Your task to perform on an android device: What's the weather? Image 0: 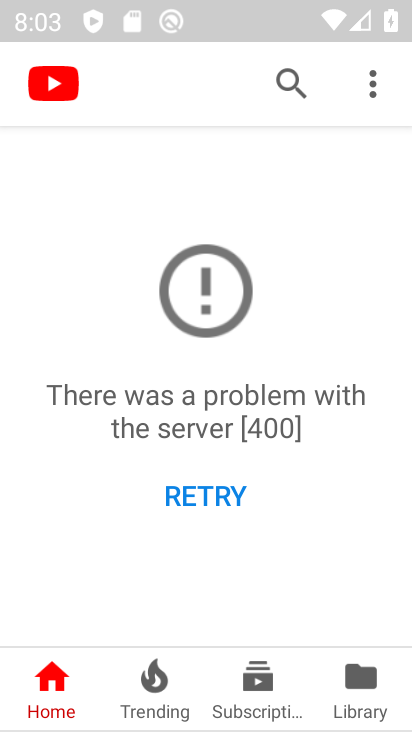
Step 0: press home button
Your task to perform on an android device: What's the weather? Image 1: 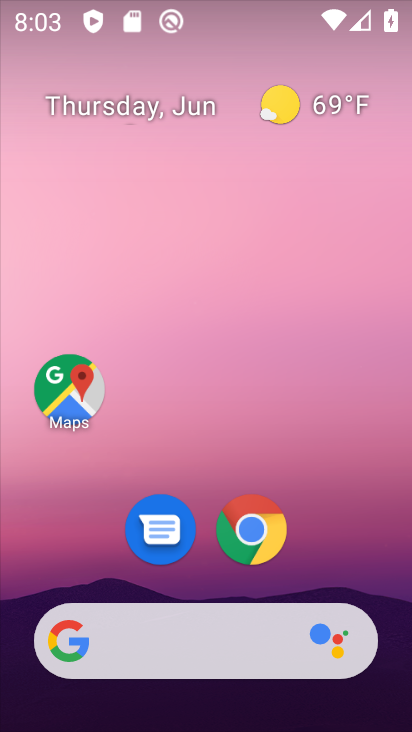
Step 1: click (172, 641)
Your task to perform on an android device: What's the weather? Image 2: 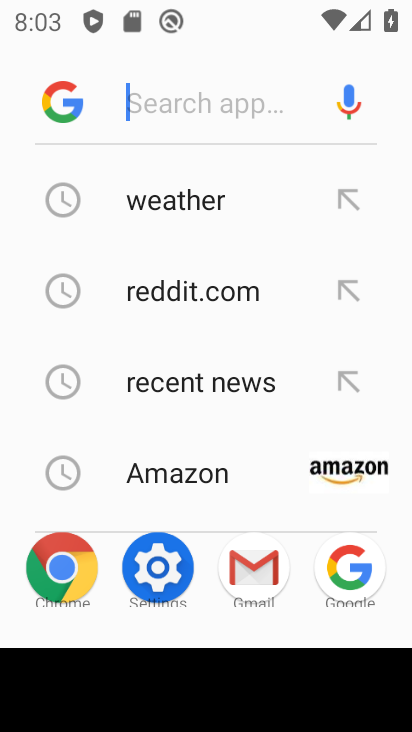
Step 2: click (205, 221)
Your task to perform on an android device: What's the weather? Image 3: 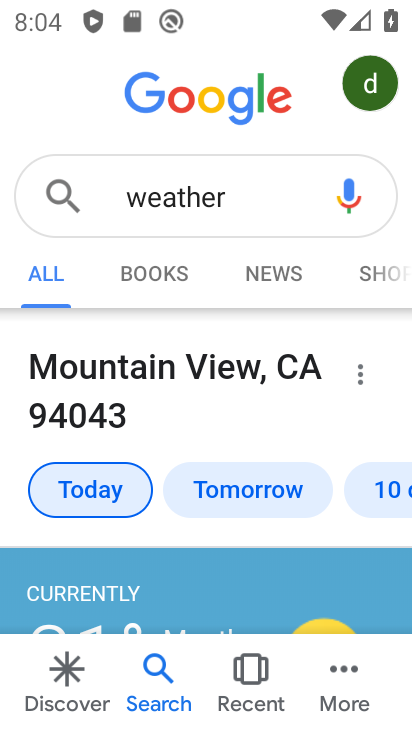
Step 3: click (96, 484)
Your task to perform on an android device: What's the weather? Image 4: 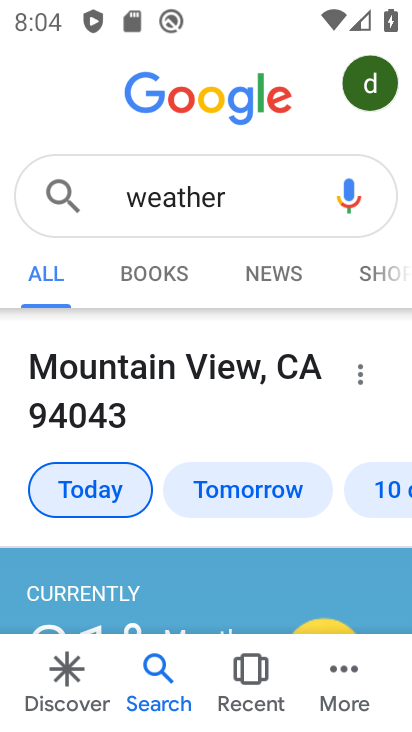
Step 4: task complete